Your task to perform on an android device: turn off airplane mode Image 0: 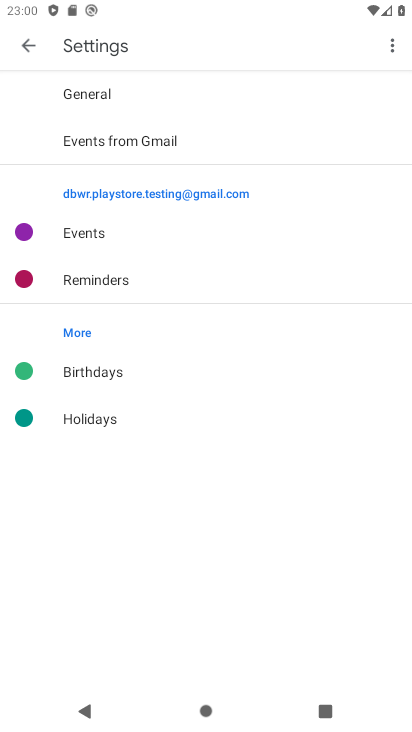
Step 0: press back button
Your task to perform on an android device: turn off airplane mode Image 1: 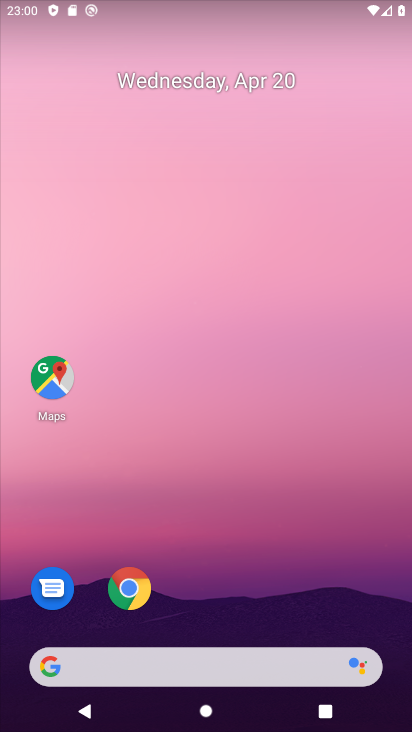
Step 1: drag from (208, 630) to (291, 174)
Your task to perform on an android device: turn off airplane mode Image 2: 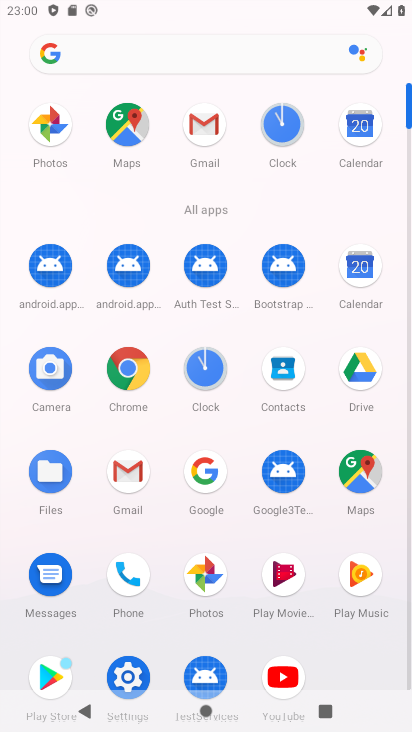
Step 2: click (122, 680)
Your task to perform on an android device: turn off airplane mode Image 3: 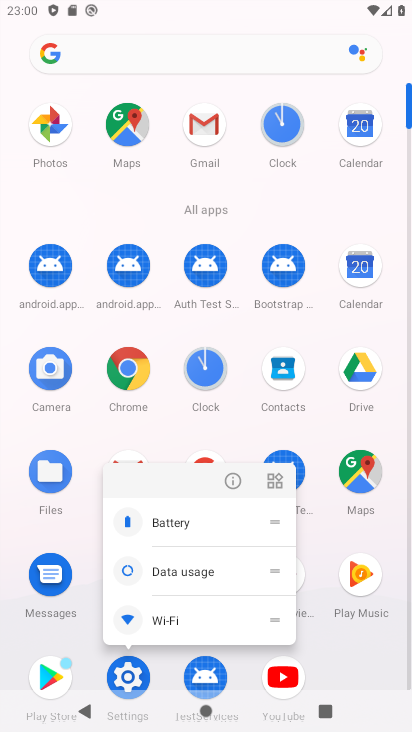
Step 3: click (143, 681)
Your task to perform on an android device: turn off airplane mode Image 4: 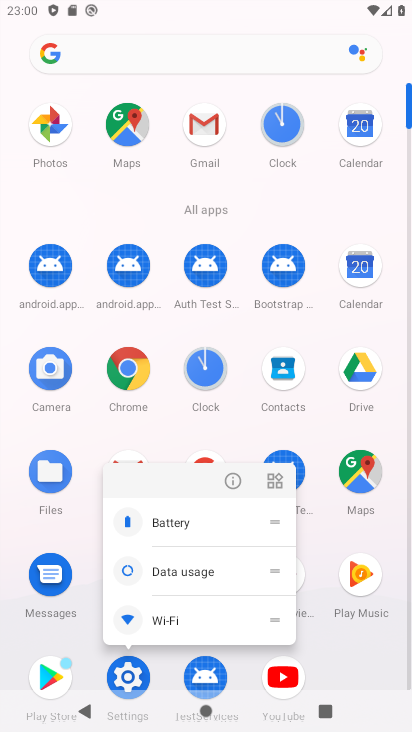
Step 4: click (127, 684)
Your task to perform on an android device: turn off airplane mode Image 5: 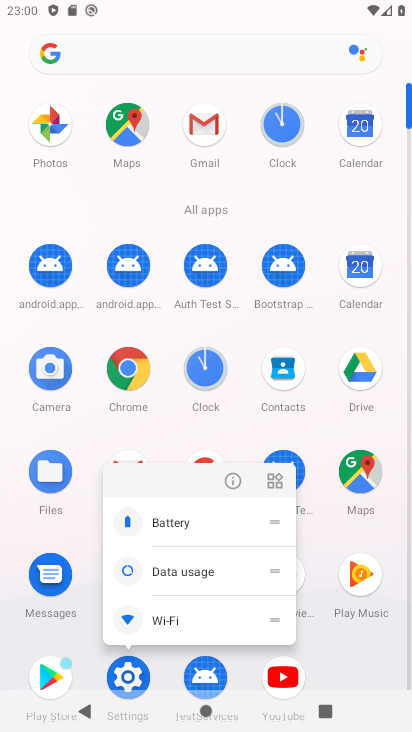
Step 5: click (131, 685)
Your task to perform on an android device: turn off airplane mode Image 6: 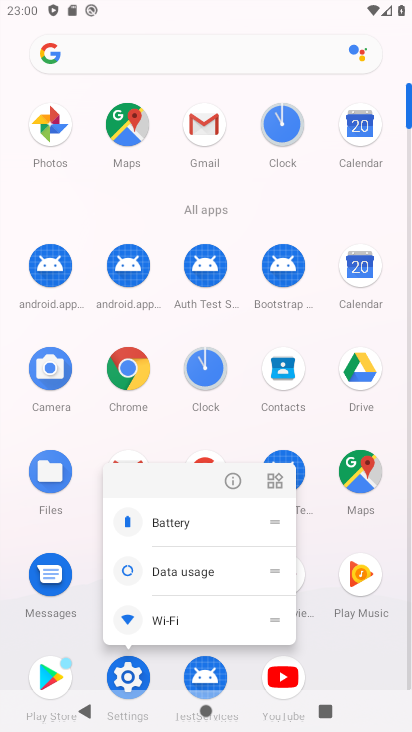
Step 6: click (144, 686)
Your task to perform on an android device: turn off airplane mode Image 7: 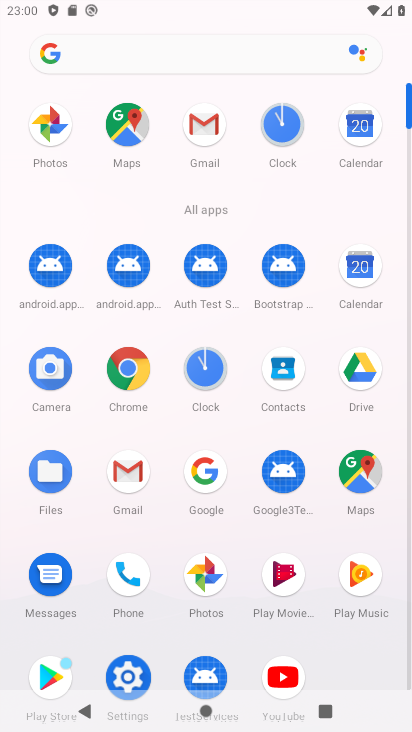
Step 7: click (132, 681)
Your task to perform on an android device: turn off airplane mode Image 8: 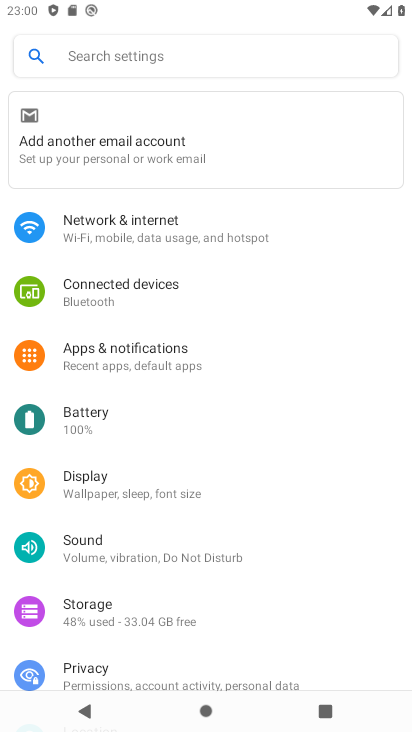
Step 8: click (195, 241)
Your task to perform on an android device: turn off airplane mode Image 9: 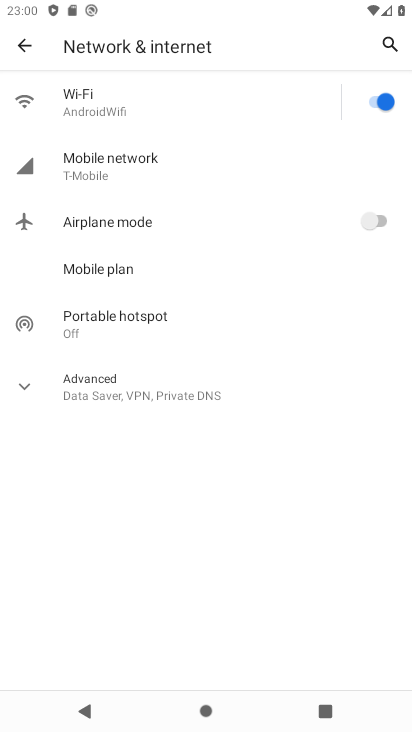
Step 9: task complete